Your task to perform on an android device: See recent photos Image 0: 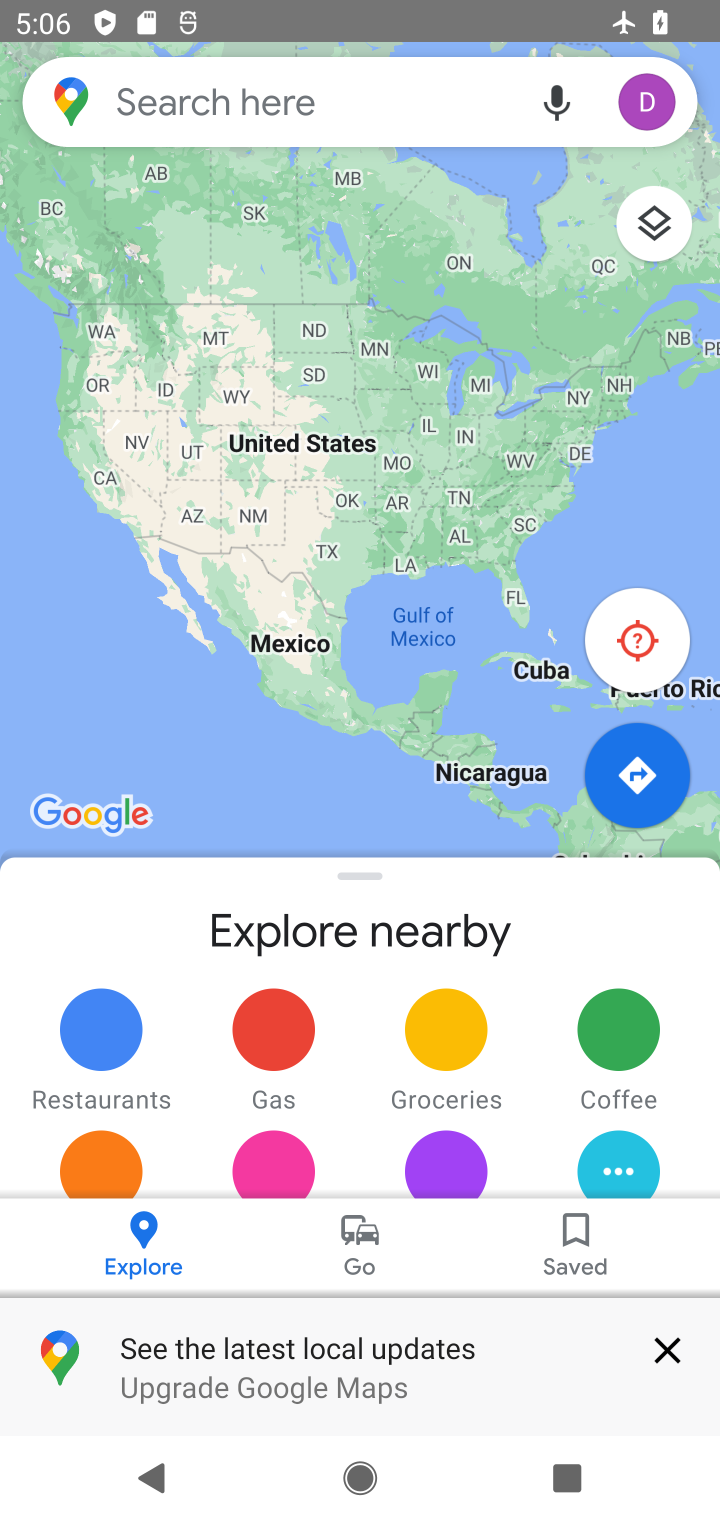
Step 0: press home button
Your task to perform on an android device: See recent photos Image 1: 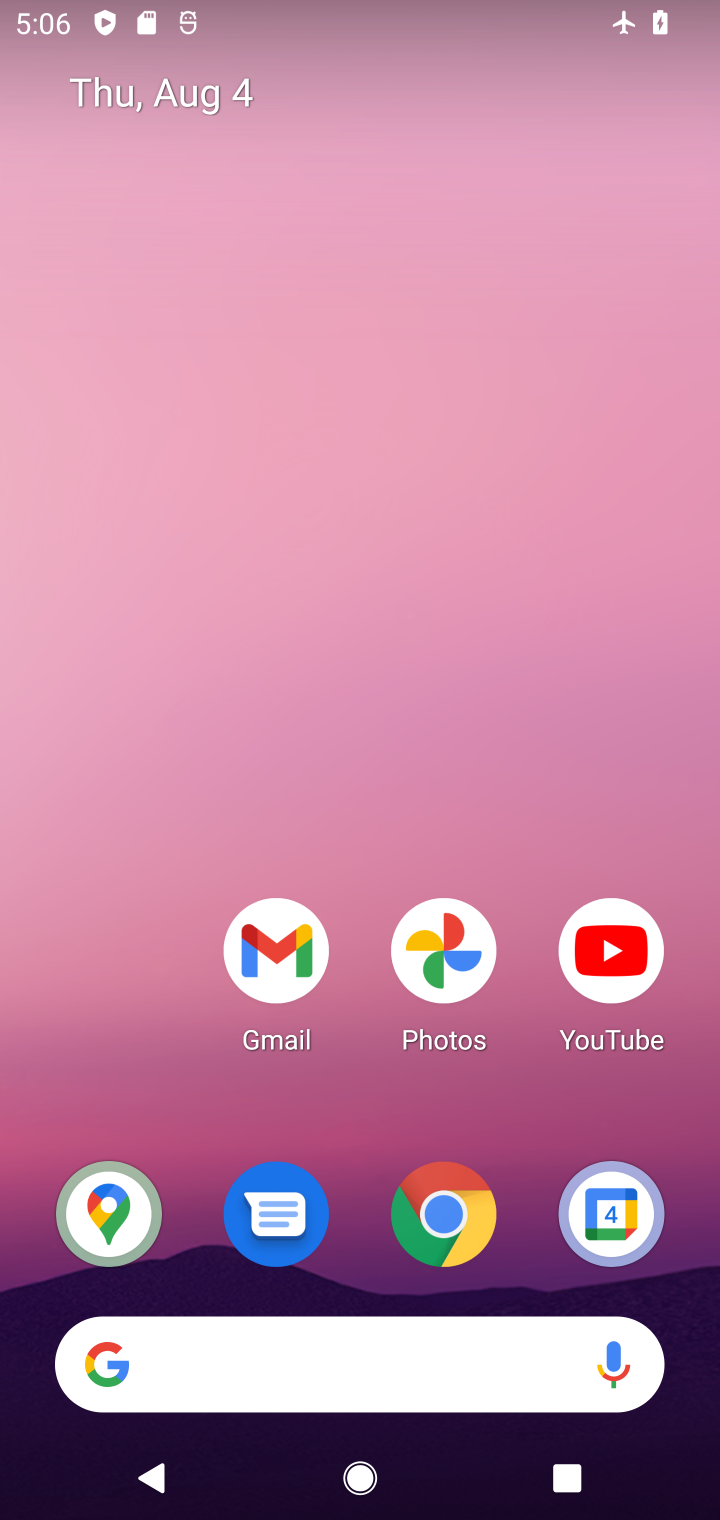
Step 1: drag from (367, 1079) to (416, 54)
Your task to perform on an android device: See recent photos Image 2: 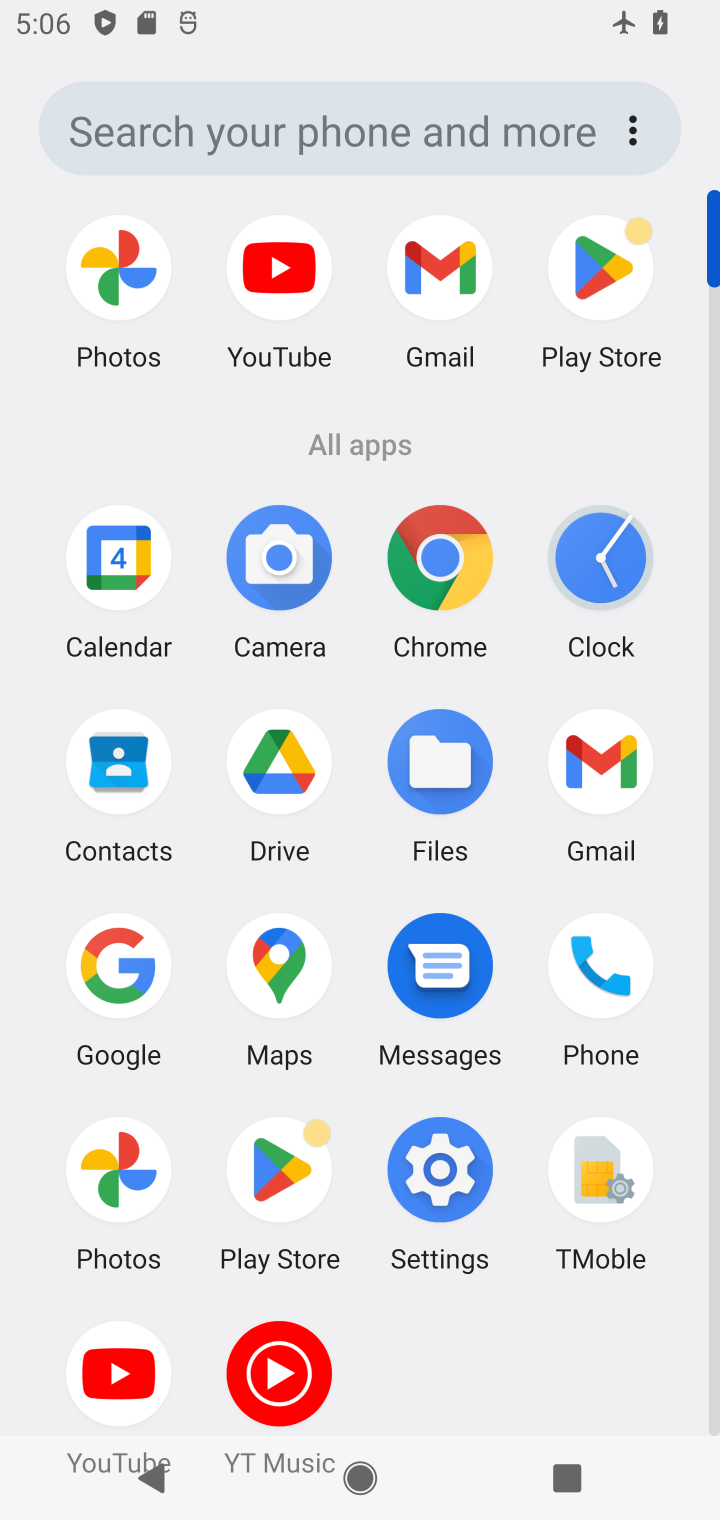
Step 2: click (102, 276)
Your task to perform on an android device: See recent photos Image 3: 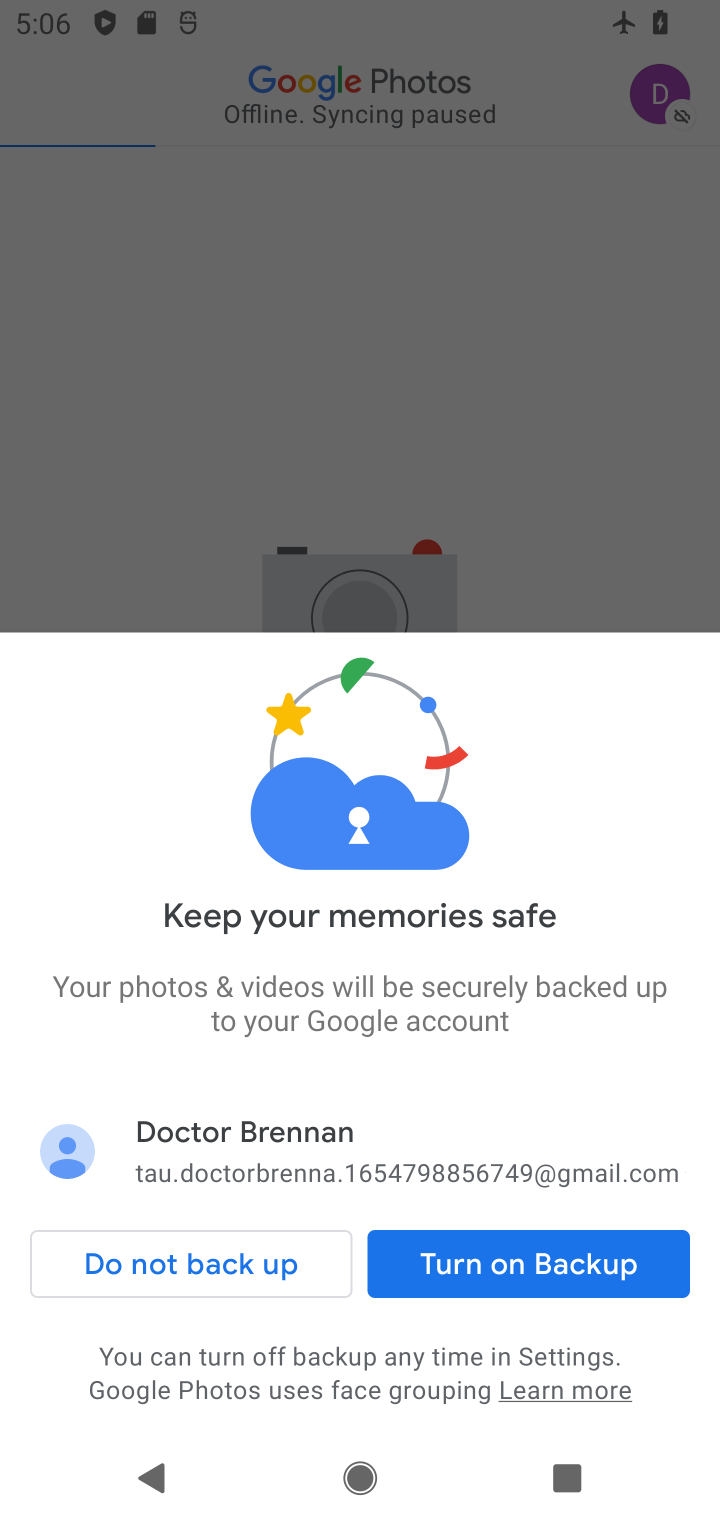
Step 3: click (612, 1286)
Your task to perform on an android device: See recent photos Image 4: 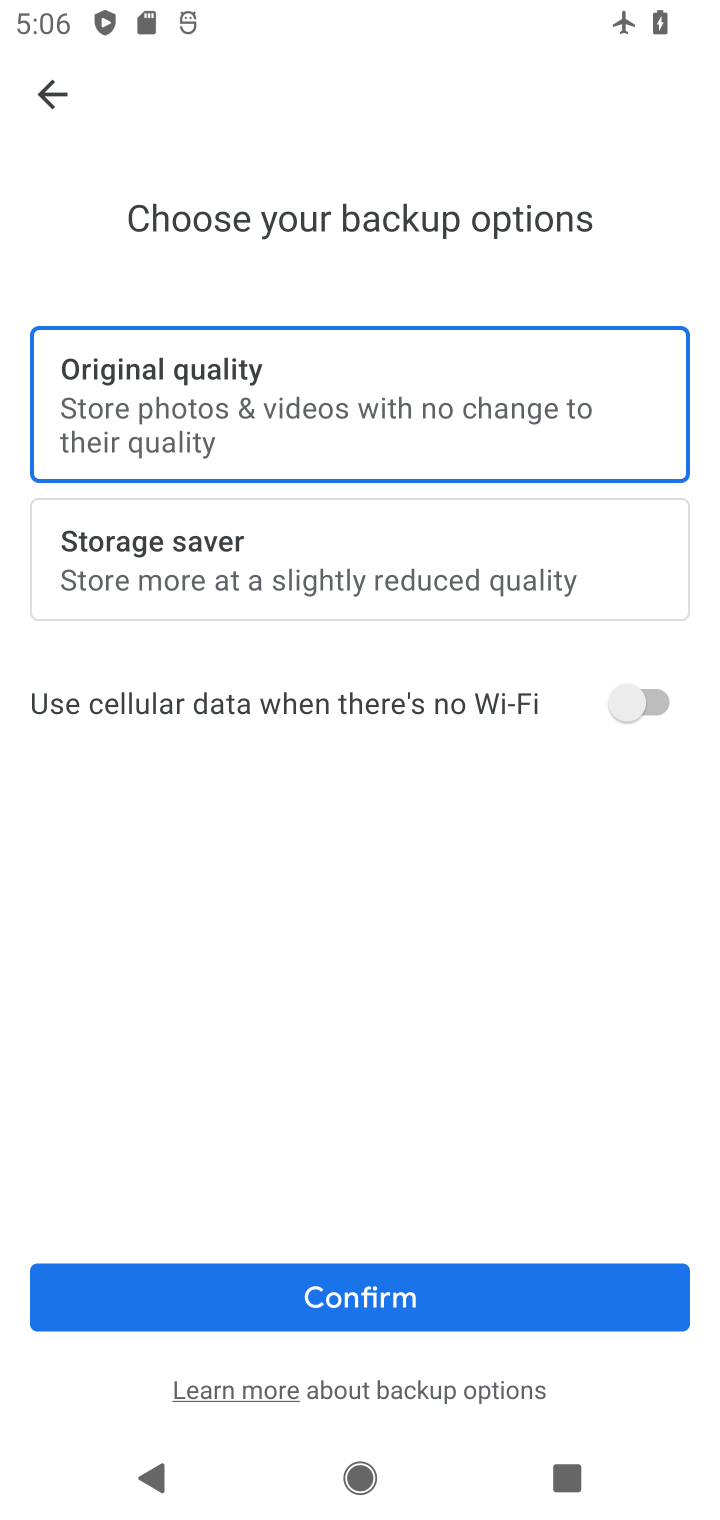
Step 4: drag from (612, 1286) to (524, 1286)
Your task to perform on an android device: See recent photos Image 5: 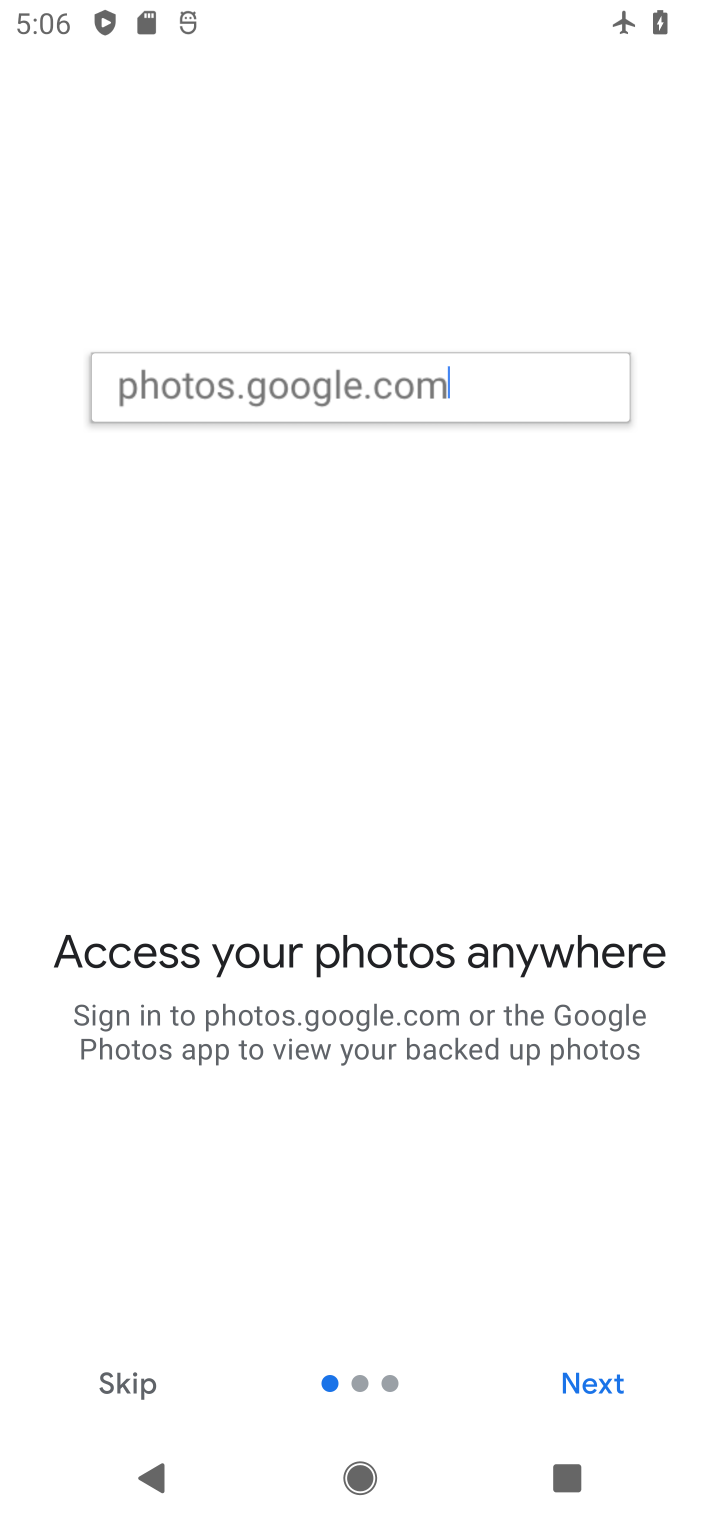
Step 5: click (140, 1391)
Your task to perform on an android device: See recent photos Image 6: 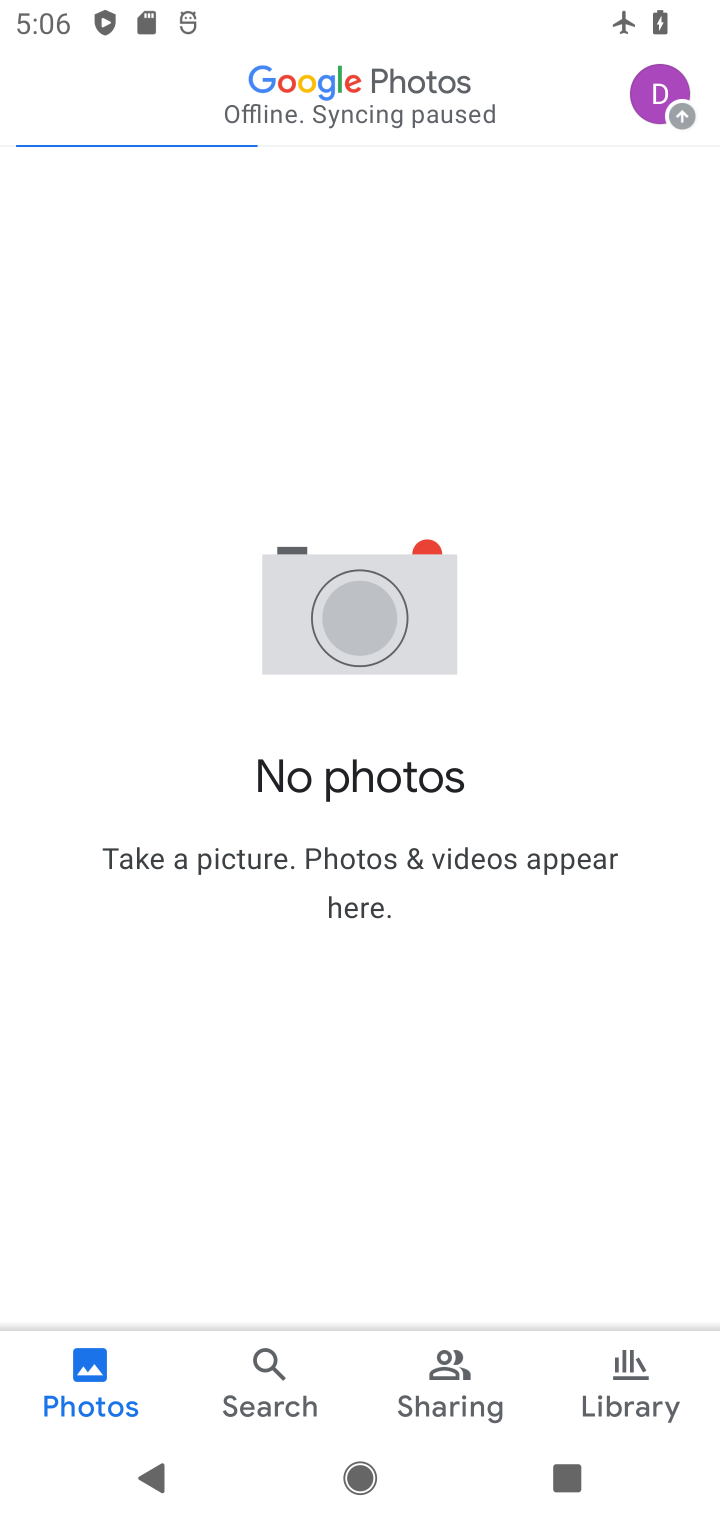
Step 6: task complete